Your task to perform on an android device: What's the weather going to be tomorrow? Image 0: 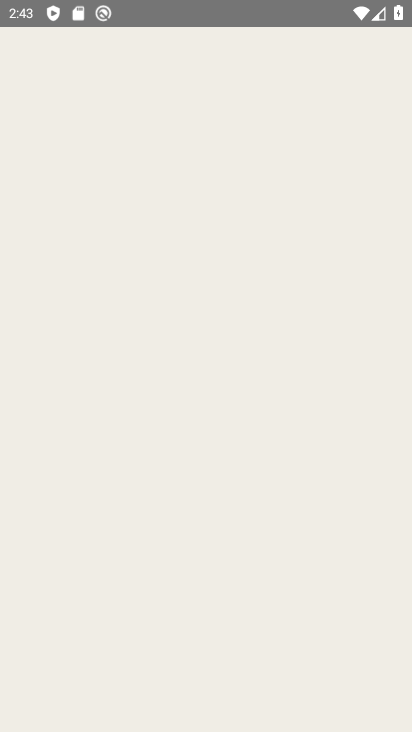
Step 0: click (323, 155)
Your task to perform on an android device: What's the weather going to be tomorrow? Image 1: 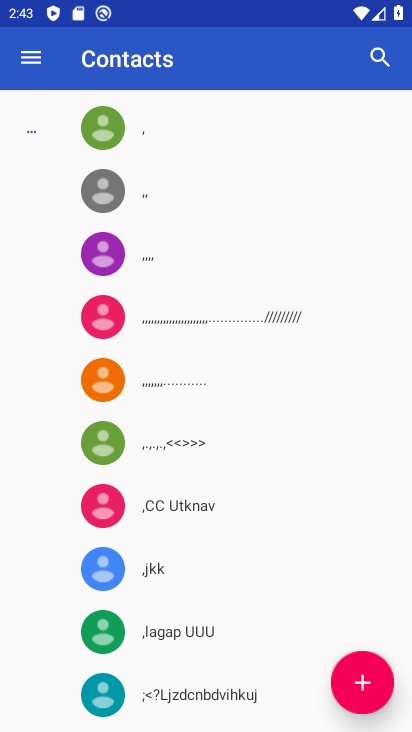
Step 1: press home button
Your task to perform on an android device: What's the weather going to be tomorrow? Image 2: 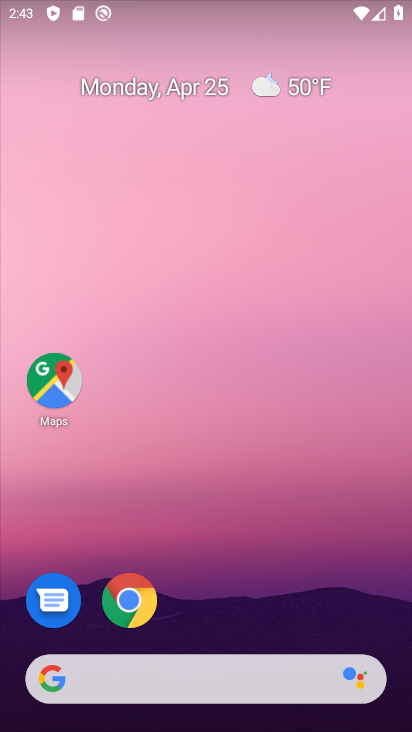
Step 2: drag from (356, 518) to (344, 100)
Your task to perform on an android device: What's the weather going to be tomorrow? Image 3: 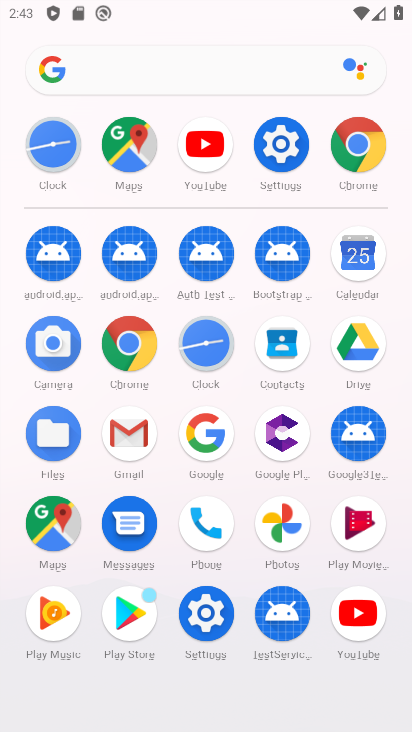
Step 3: click (134, 339)
Your task to perform on an android device: What's the weather going to be tomorrow? Image 4: 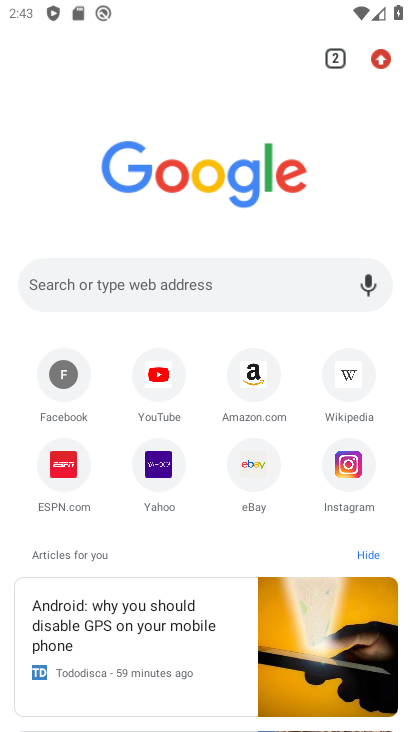
Step 4: click (161, 275)
Your task to perform on an android device: What's the weather going to be tomorrow? Image 5: 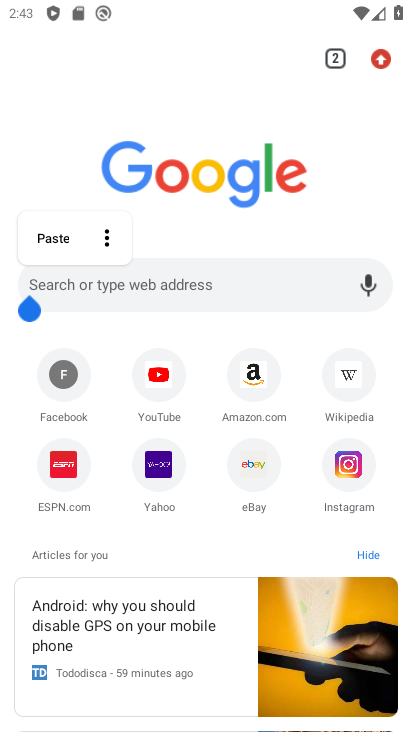
Step 5: click (188, 285)
Your task to perform on an android device: What's the weather going to be tomorrow? Image 6: 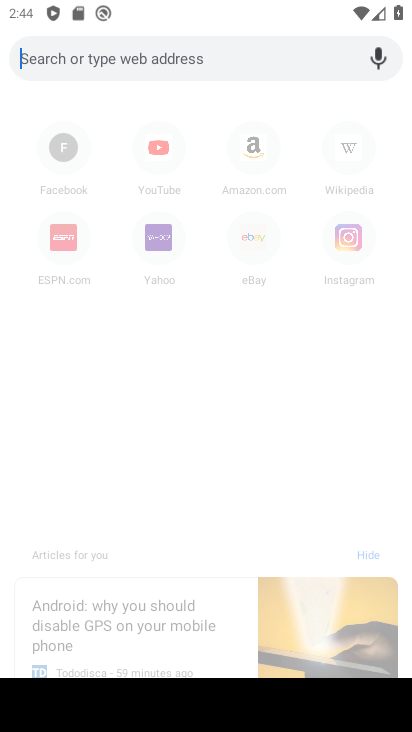
Step 6: type "what's the weather going to be tomorrow"
Your task to perform on an android device: What's the weather going to be tomorrow? Image 7: 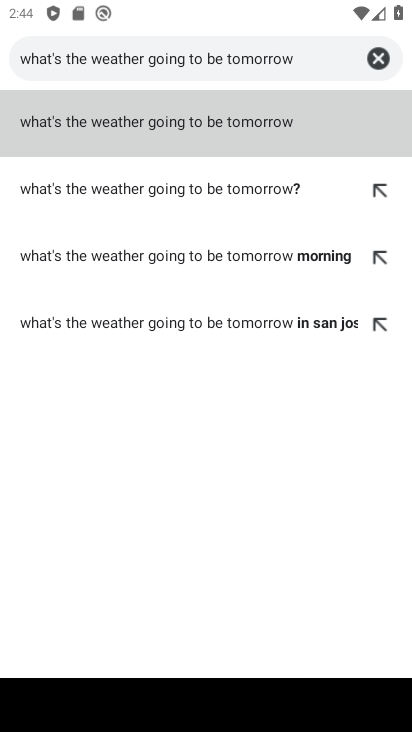
Step 7: click (93, 128)
Your task to perform on an android device: What's the weather going to be tomorrow? Image 8: 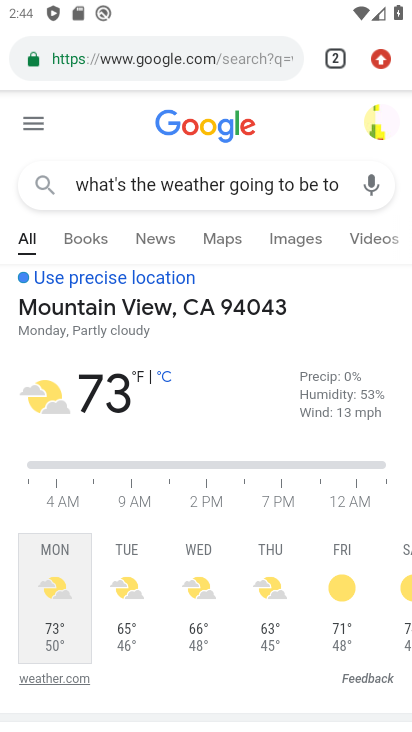
Step 8: task complete